Your task to perform on an android device: Open network settings Image 0: 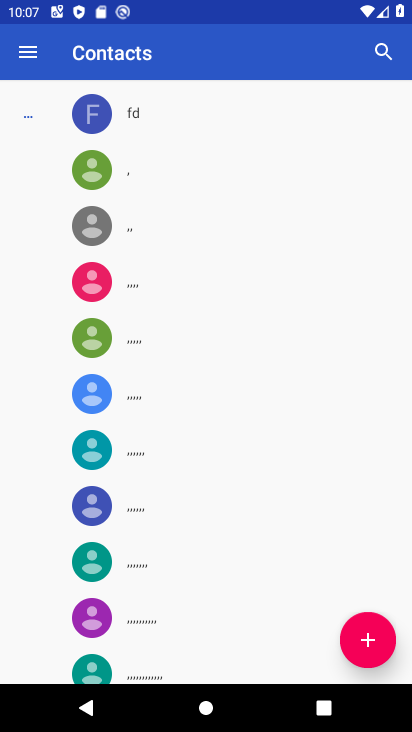
Step 0: press home button
Your task to perform on an android device: Open network settings Image 1: 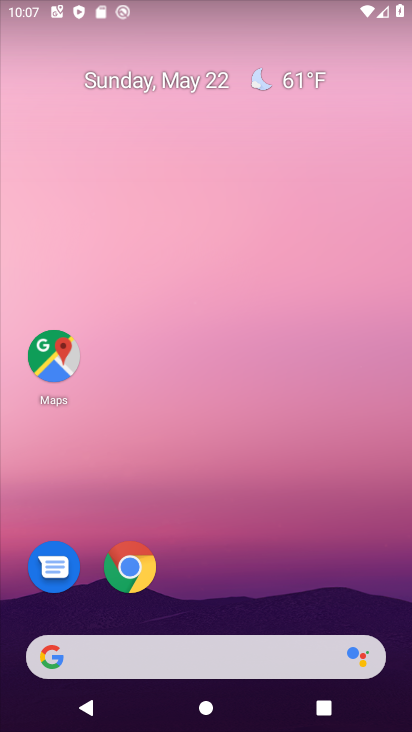
Step 1: drag from (192, 603) to (102, 19)
Your task to perform on an android device: Open network settings Image 2: 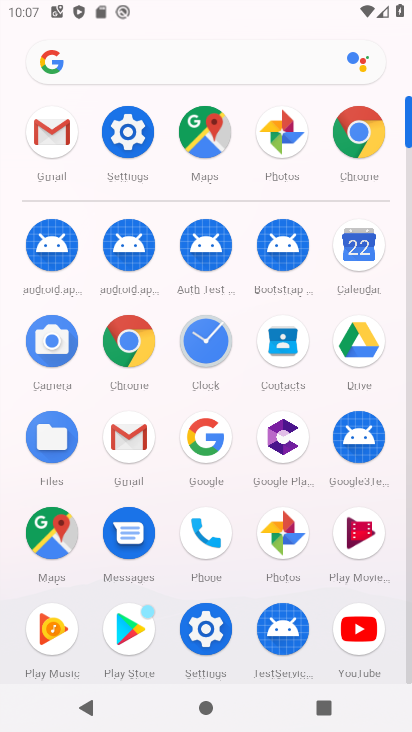
Step 2: click (116, 164)
Your task to perform on an android device: Open network settings Image 3: 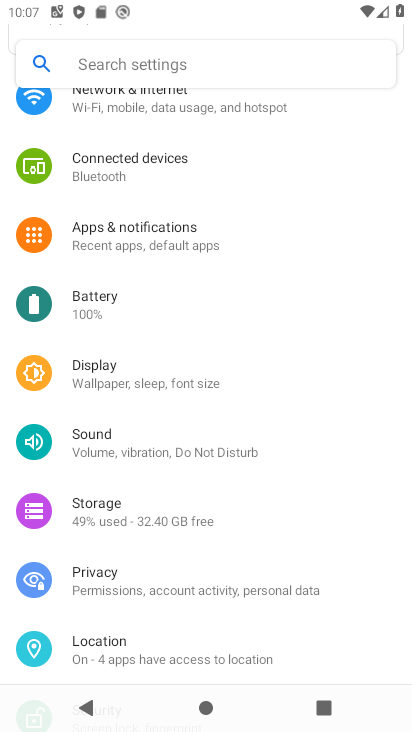
Step 3: drag from (132, 114) to (139, 493)
Your task to perform on an android device: Open network settings Image 4: 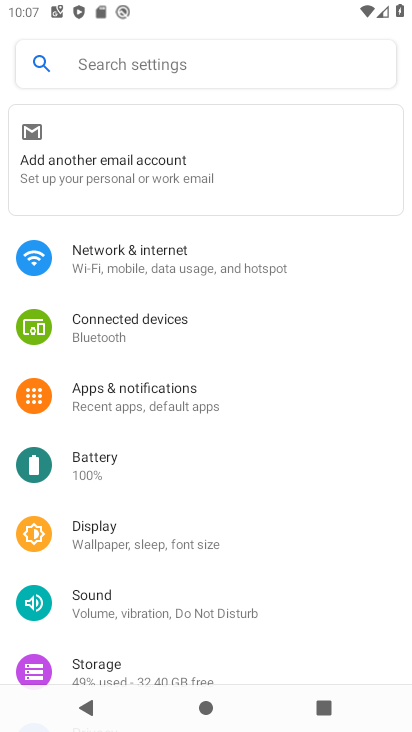
Step 4: click (172, 243)
Your task to perform on an android device: Open network settings Image 5: 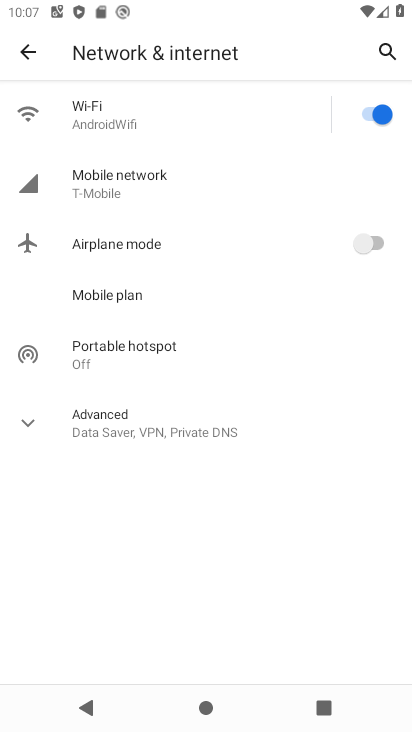
Step 5: task complete